Your task to perform on an android device: check storage Image 0: 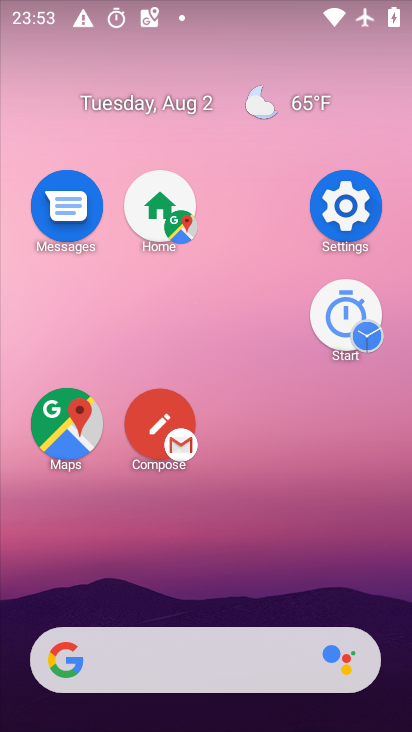
Step 0: drag from (228, 678) to (175, 211)
Your task to perform on an android device: check storage Image 1: 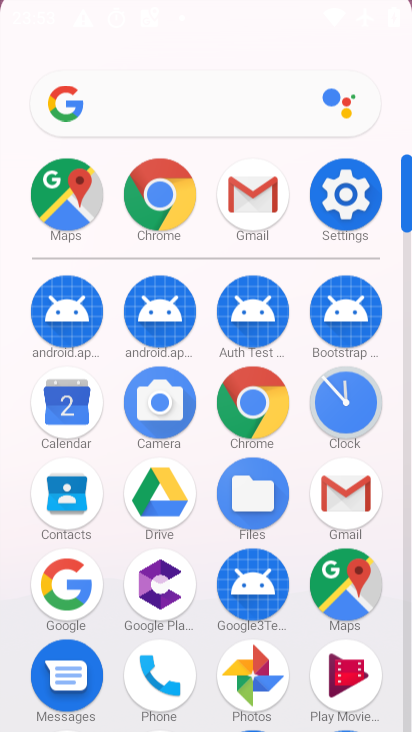
Step 1: drag from (208, 546) to (208, 151)
Your task to perform on an android device: check storage Image 2: 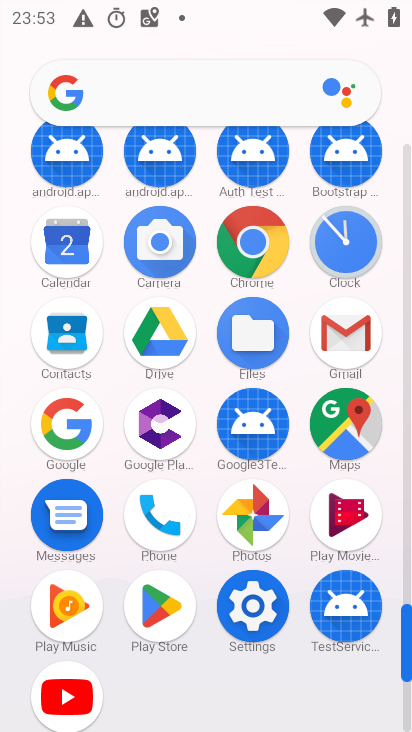
Step 2: click (252, 617)
Your task to perform on an android device: check storage Image 3: 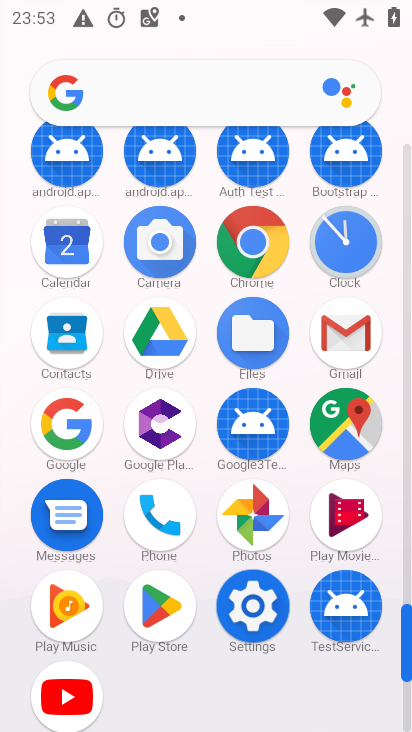
Step 3: click (252, 617)
Your task to perform on an android device: check storage Image 4: 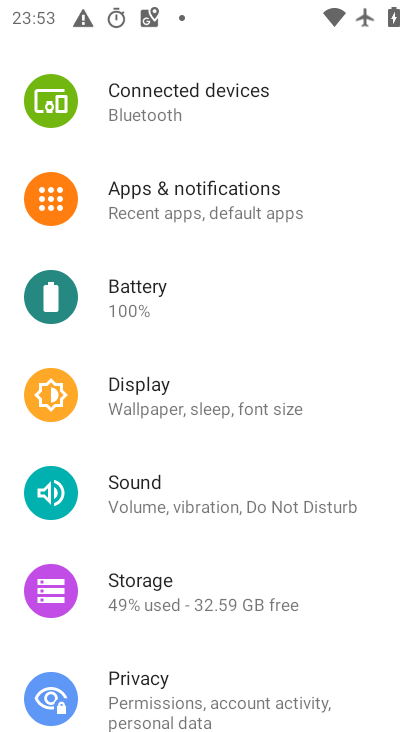
Step 4: click (134, 590)
Your task to perform on an android device: check storage Image 5: 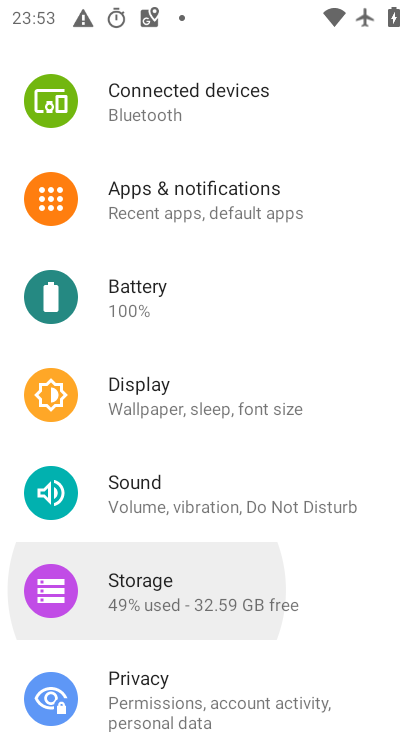
Step 5: click (134, 590)
Your task to perform on an android device: check storage Image 6: 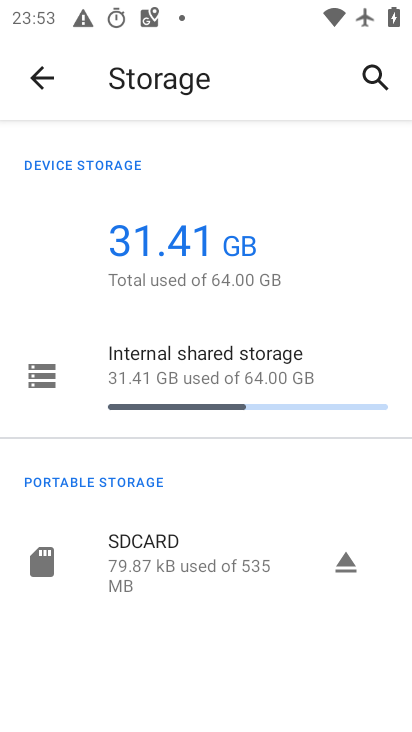
Step 6: click (208, 166)
Your task to perform on an android device: check storage Image 7: 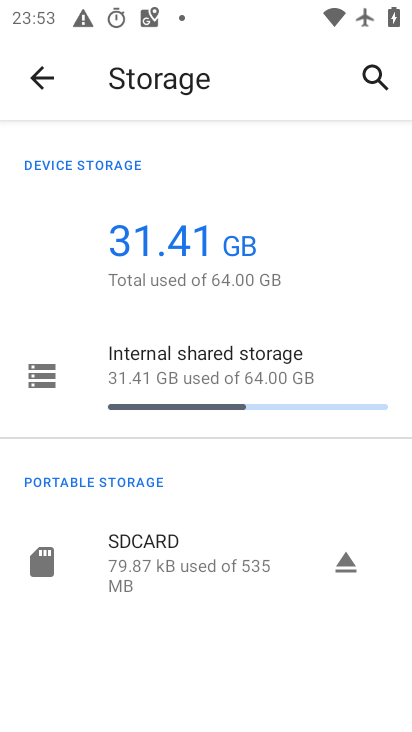
Step 7: task complete